Your task to perform on an android device: turn off airplane mode Image 0: 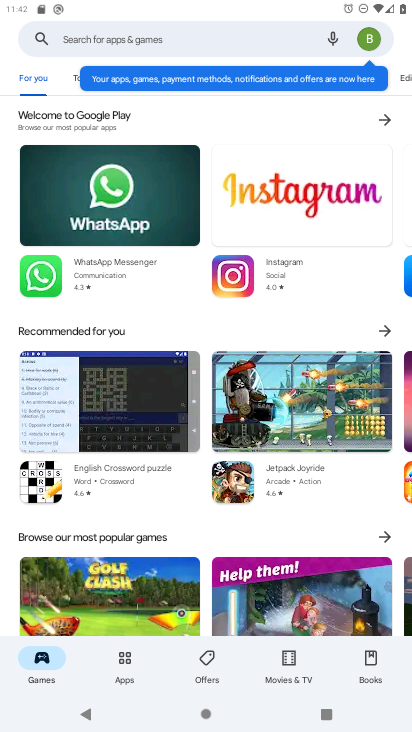
Step 0: press home button
Your task to perform on an android device: turn off airplane mode Image 1: 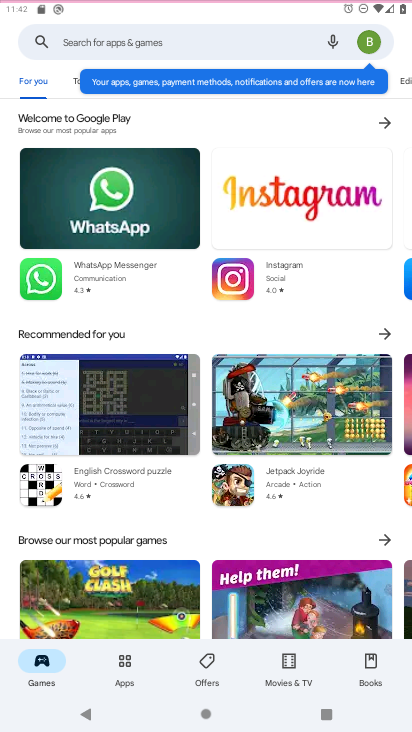
Step 1: task complete